Your task to perform on an android device: set the stopwatch Image 0: 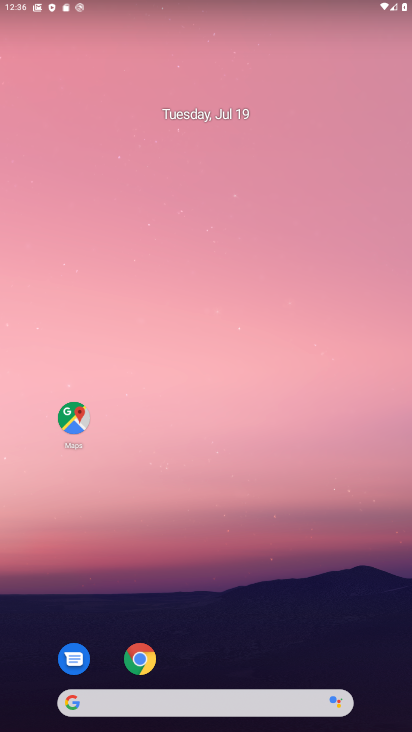
Step 0: drag from (166, 659) to (200, 217)
Your task to perform on an android device: set the stopwatch Image 1: 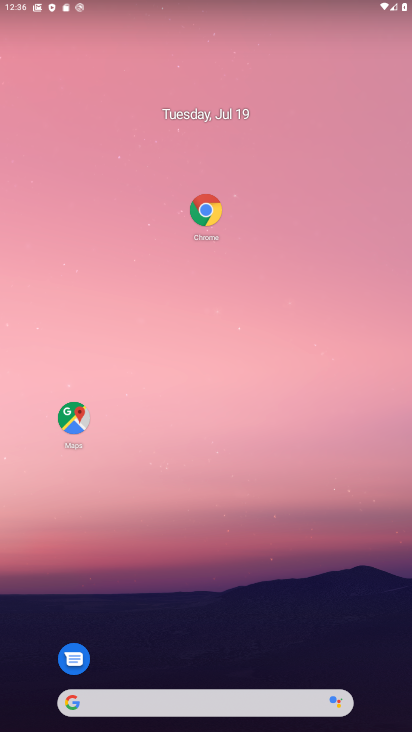
Step 1: drag from (207, 638) to (213, 216)
Your task to perform on an android device: set the stopwatch Image 2: 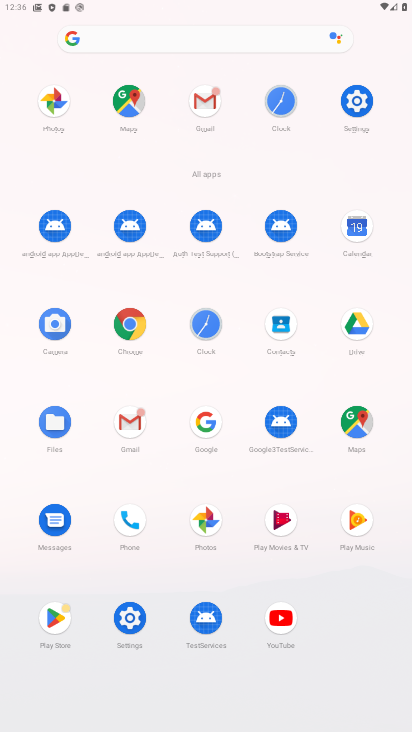
Step 2: click (214, 323)
Your task to perform on an android device: set the stopwatch Image 3: 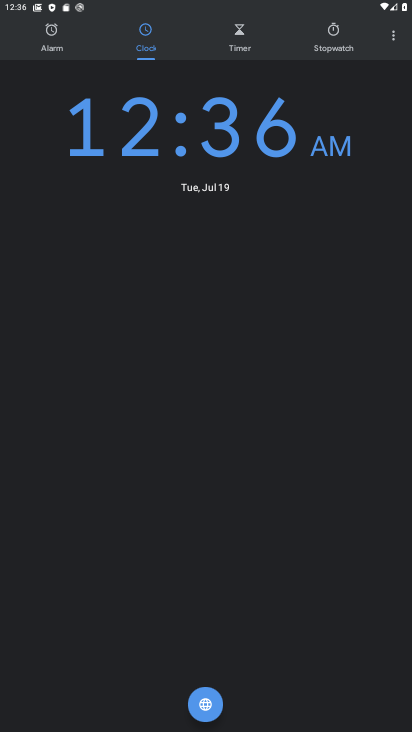
Step 3: click (323, 42)
Your task to perform on an android device: set the stopwatch Image 4: 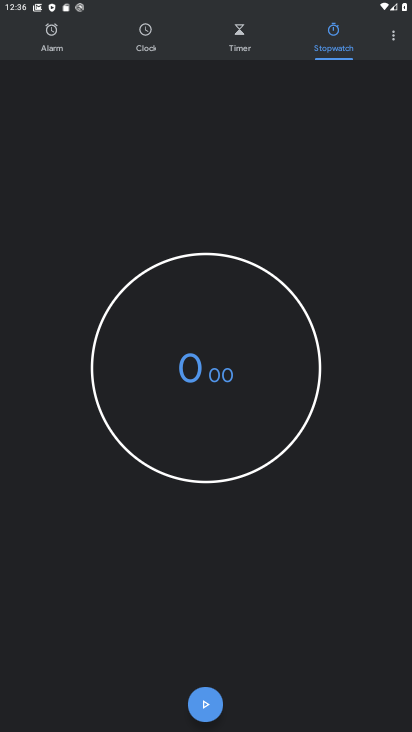
Step 4: click (210, 696)
Your task to perform on an android device: set the stopwatch Image 5: 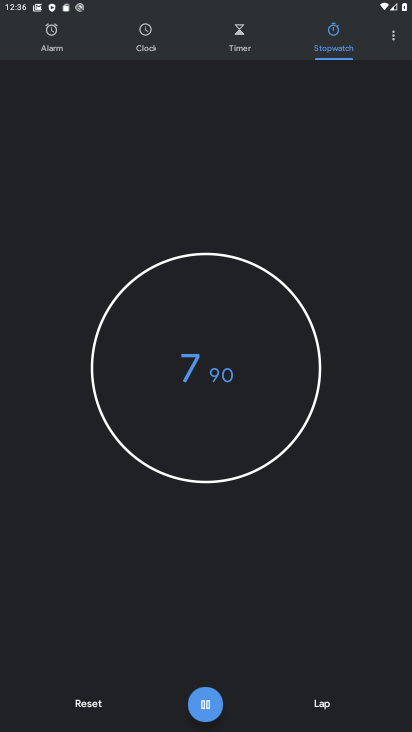
Step 5: task complete